Your task to perform on an android device: find snoozed emails in the gmail app Image 0: 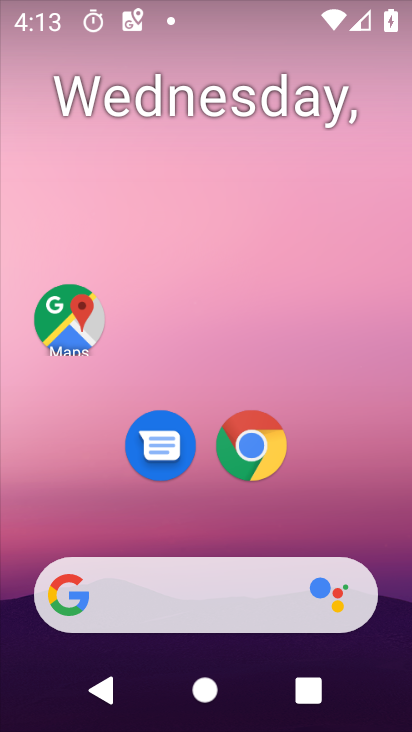
Step 0: drag from (200, 527) to (219, 85)
Your task to perform on an android device: find snoozed emails in the gmail app Image 1: 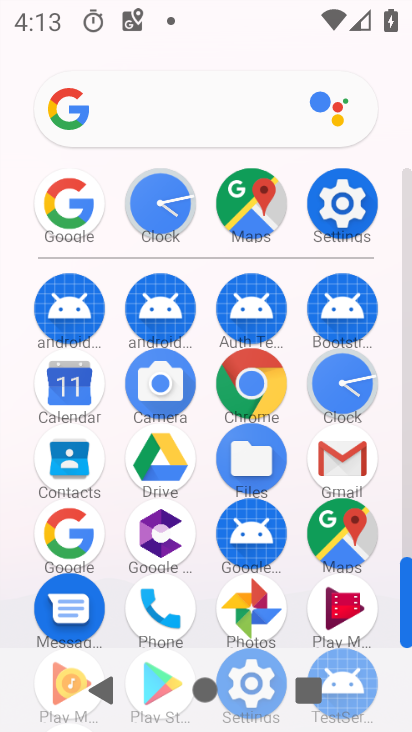
Step 1: click (348, 460)
Your task to perform on an android device: find snoozed emails in the gmail app Image 2: 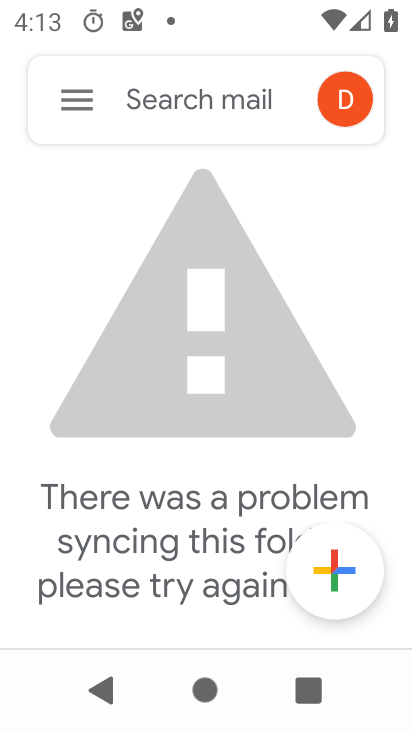
Step 2: click (71, 97)
Your task to perform on an android device: find snoozed emails in the gmail app Image 3: 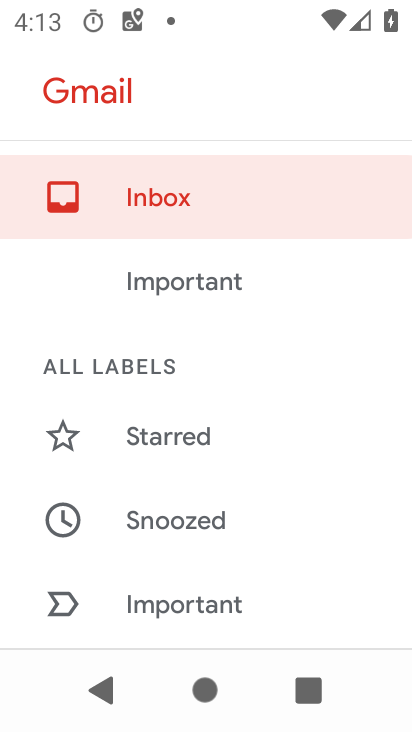
Step 3: click (182, 531)
Your task to perform on an android device: find snoozed emails in the gmail app Image 4: 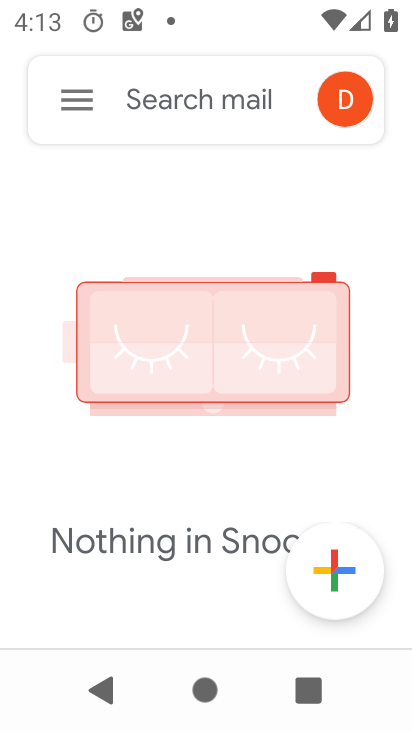
Step 4: task complete